Your task to perform on an android device: delete location history Image 0: 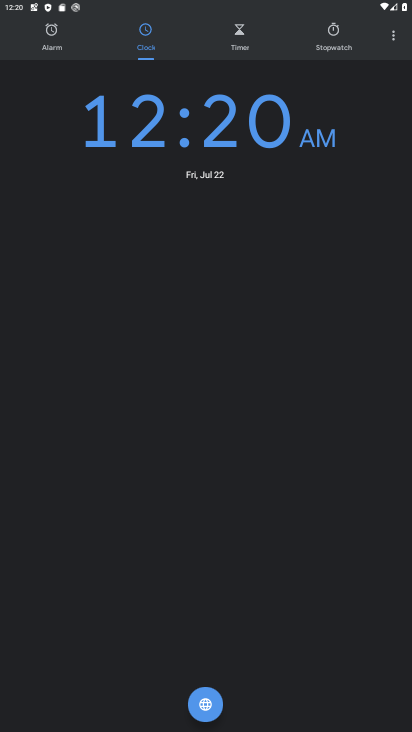
Step 0: press home button
Your task to perform on an android device: delete location history Image 1: 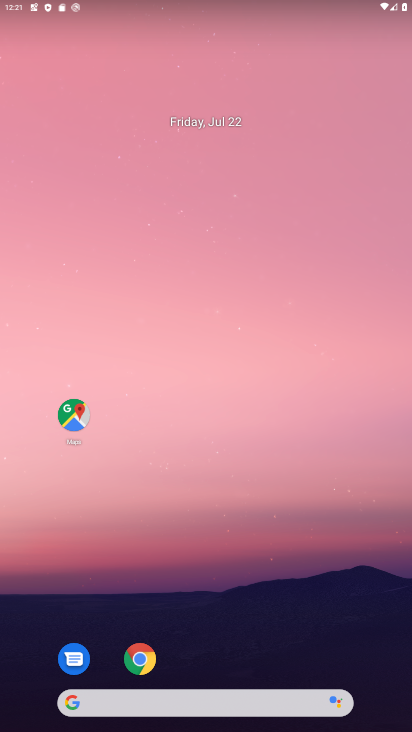
Step 1: drag from (190, 574) to (215, 219)
Your task to perform on an android device: delete location history Image 2: 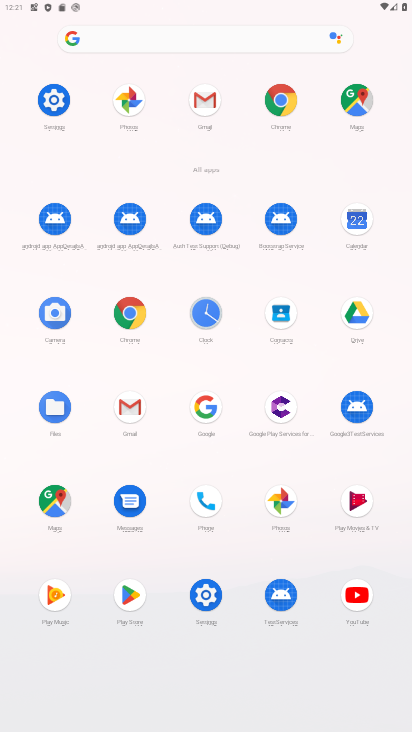
Step 2: click (54, 511)
Your task to perform on an android device: delete location history Image 3: 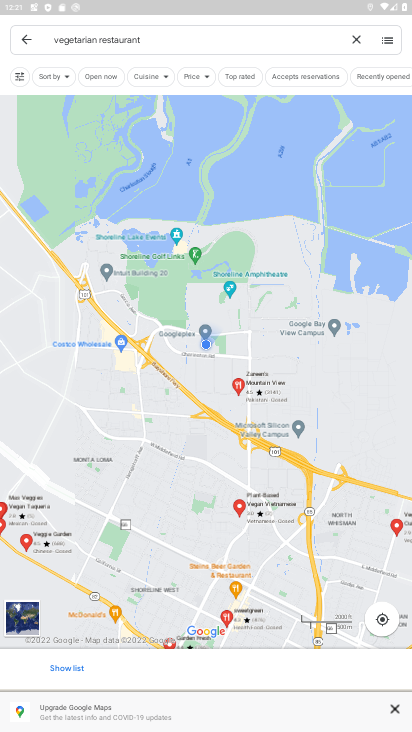
Step 3: click (32, 42)
Your task to perform on an android device: delete location history Image 4: 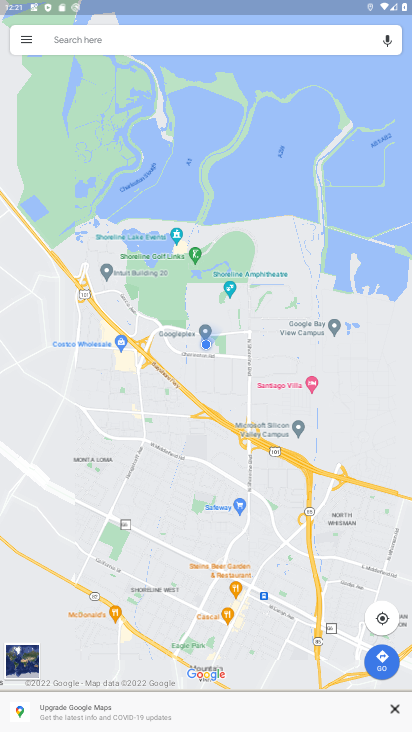
Step 4: click (32, 42)
Your task to perform on an android device: delete location history Image 5: 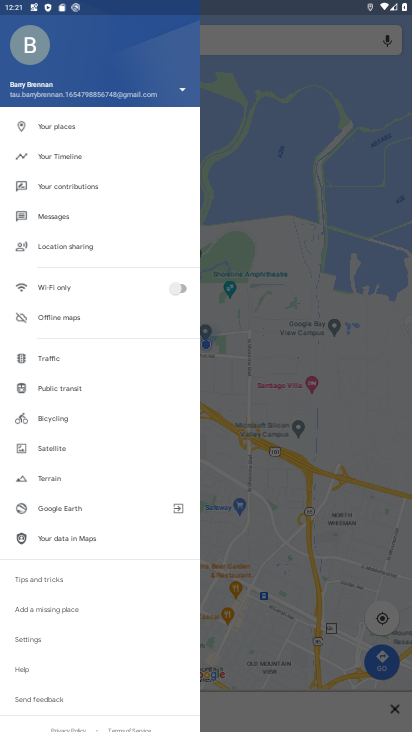
Step 5: click (37, 641)
Your task to perform on an android device: delete location history Image 6: 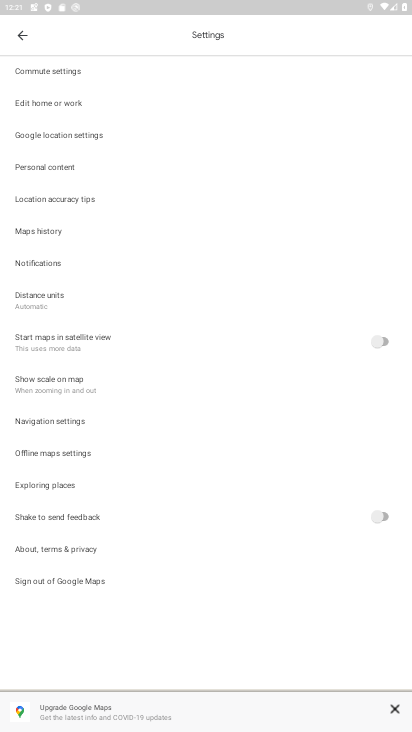
Step 6: click (21, 33)
Your task to perform on an android device: delete location history Image 7: 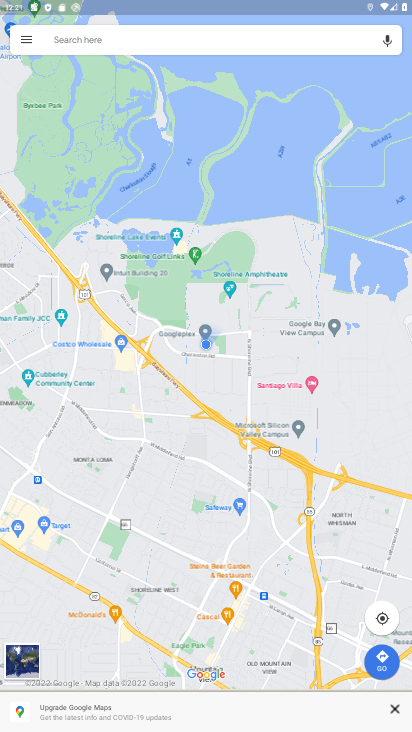
Step 7: click (32, 41)
Your task to perform on an android device: delete location history Image 8: 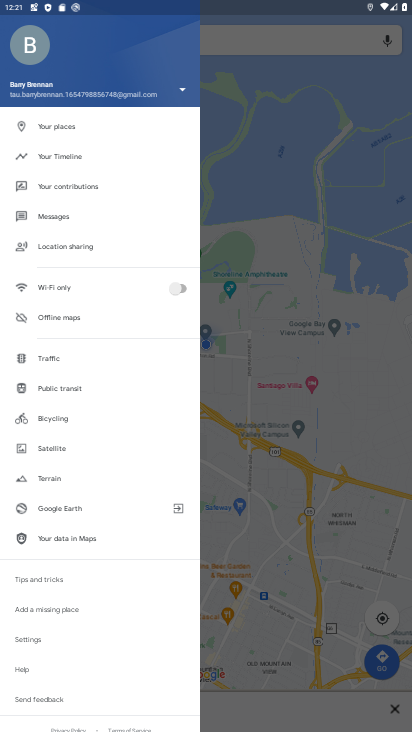
Step 8: click (58, 157)
Your task to perform on an android device: delete location history Image 9: 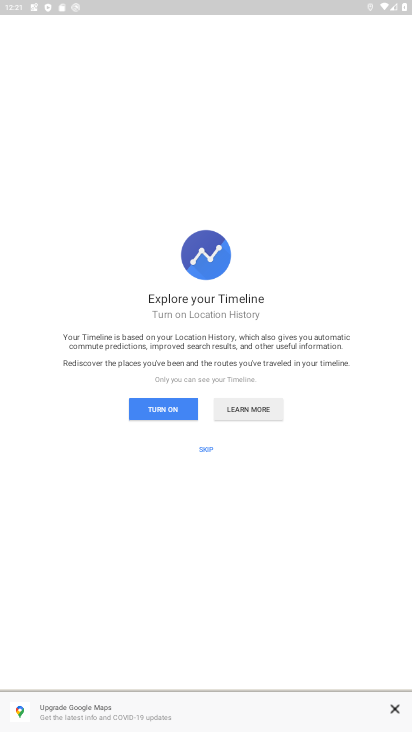
Step 9: click (150, 401)
Your task to perform on an android device: delete location history Image 10: 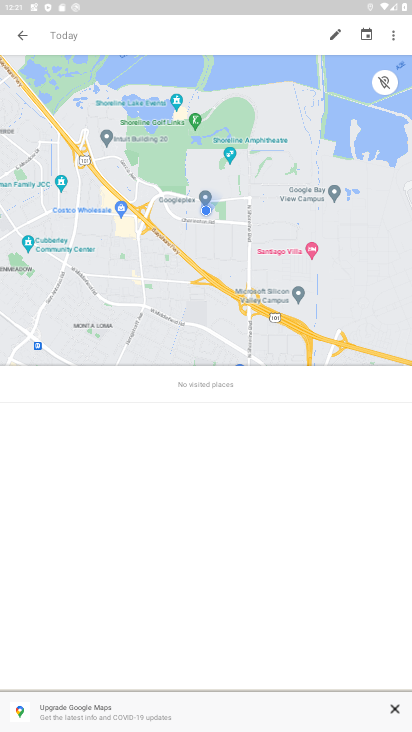
Step 10: click (393, 35)
Your task to perform on an android device: delete location history Image 11: 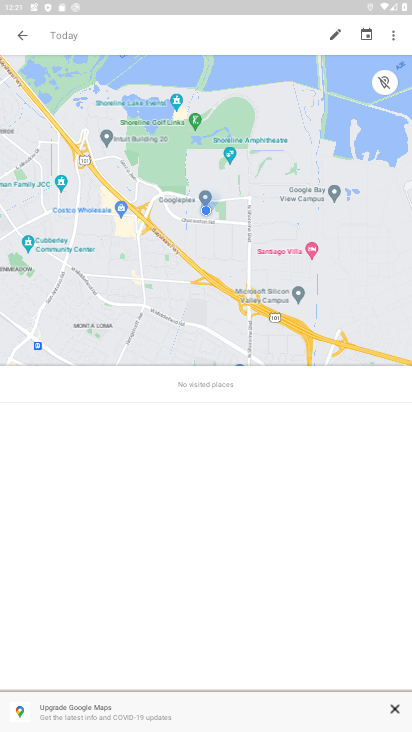
Step 11: click (388, 39)
Your task to perform on an android device: delete location history Image 12: 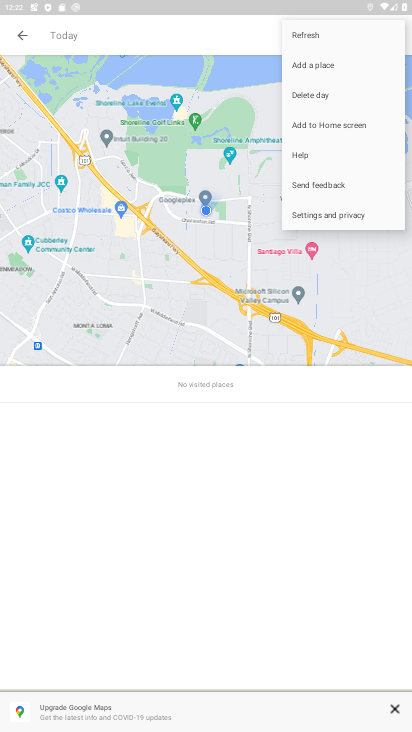
Step 12: click (317, 220)
Your task to perform on an android device: delete location history Image 13: 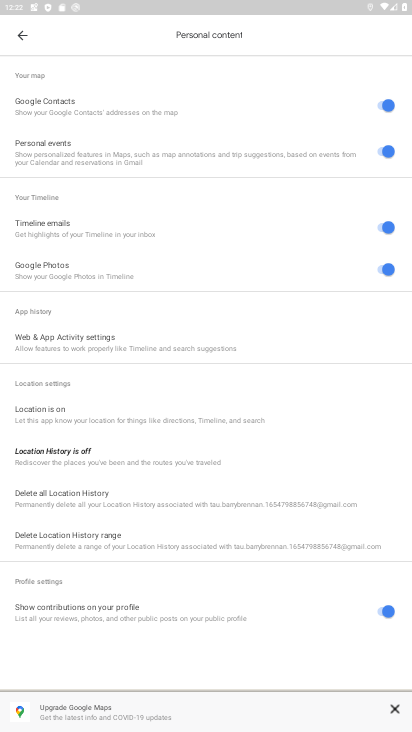
Step 13: click (97, 486)
Your task to perform on an android device: delete location history Image 14: 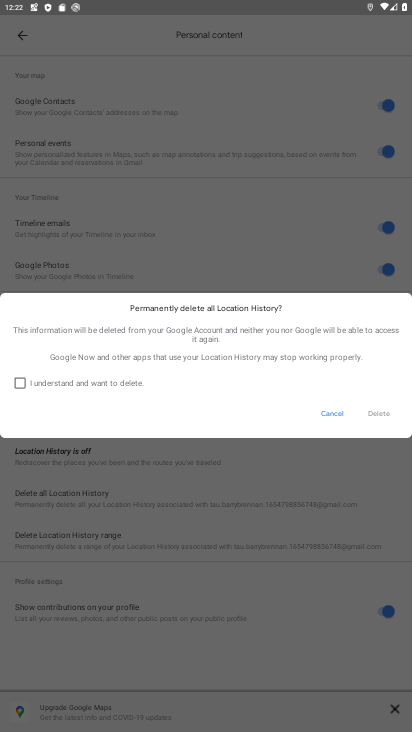
Step 14: click (20, 386)
Your task to perform on an android device: delete location history Image 15: 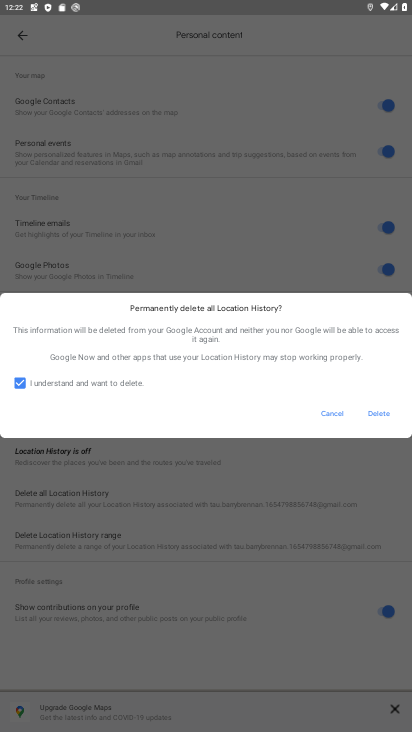
Step 15: click (376, 415)
Your task to perform on an android device: delete location history Image 16: 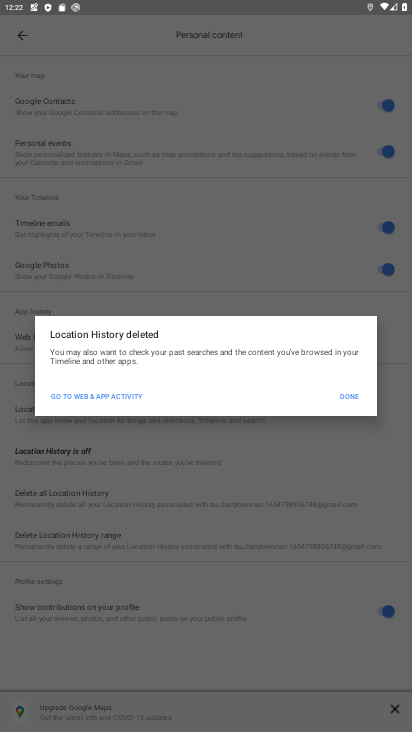
Step 16: click (354, 395)
Your task to perform on an android device: delete location history Image 17: 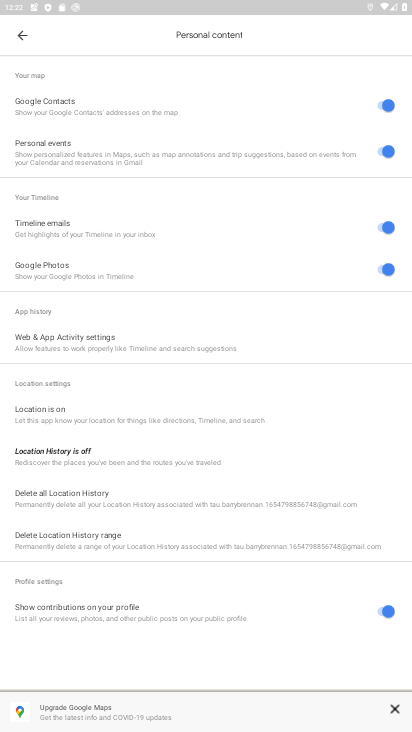
Step 17: task complete